Your task to perform on an android device: What's on my calendar today? Image 0: 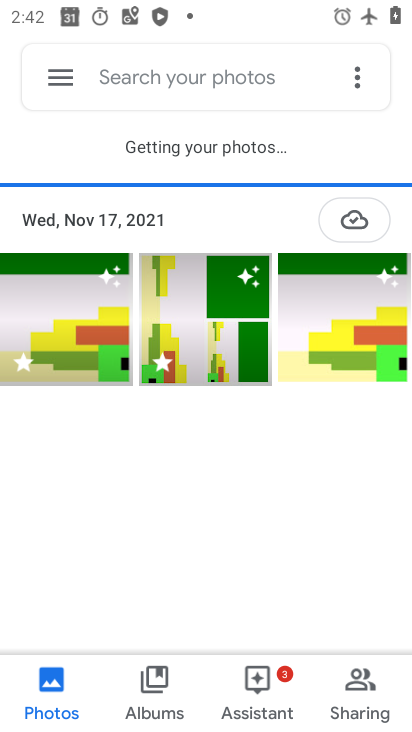
Step 0: press home button
Your task to perform on an android device: What's on my calendar today? Image 1: 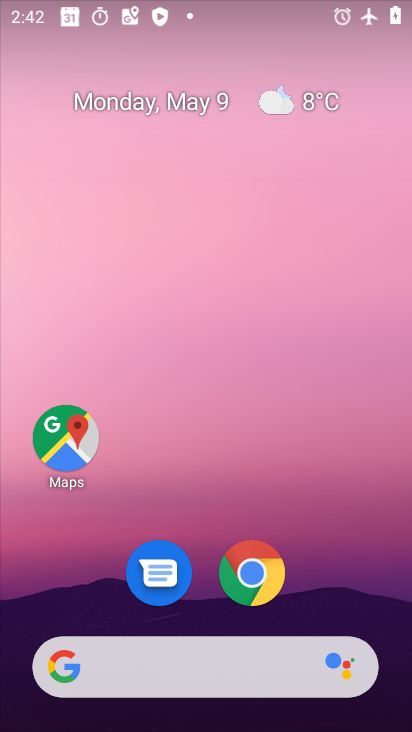
Step 1: drag from (115, 671) to (283, 116)
Your task to perform on an android device: What's on my calendar today? Image 2: 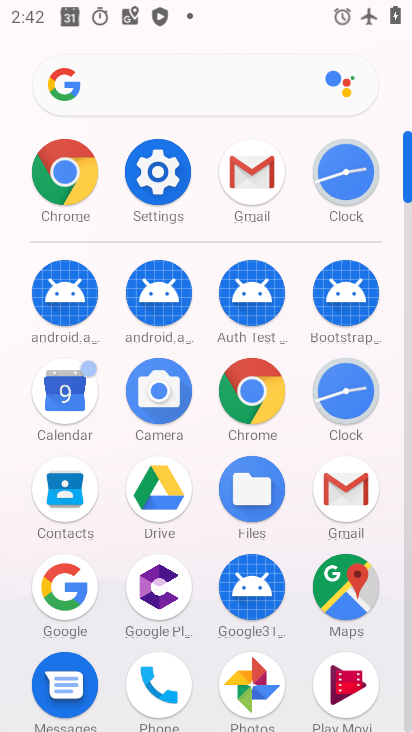
Step 2: click (66, 404)
Your task to perform on an android device: What's on my calendar today? Image 3: 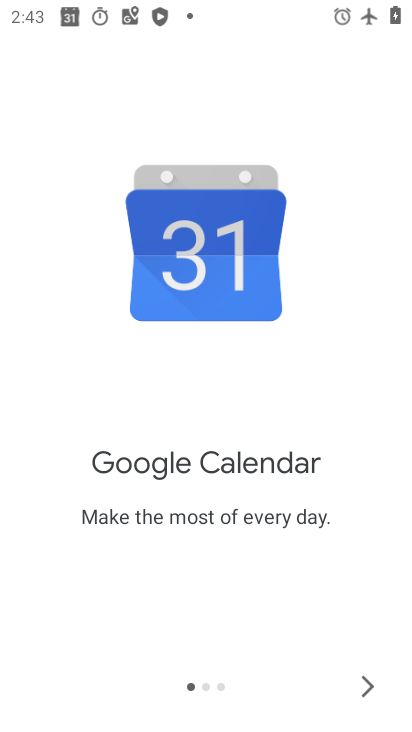
Step 3: click (365, 682)
Your task to perform on an android device: What's on my calendar today? Image 4: 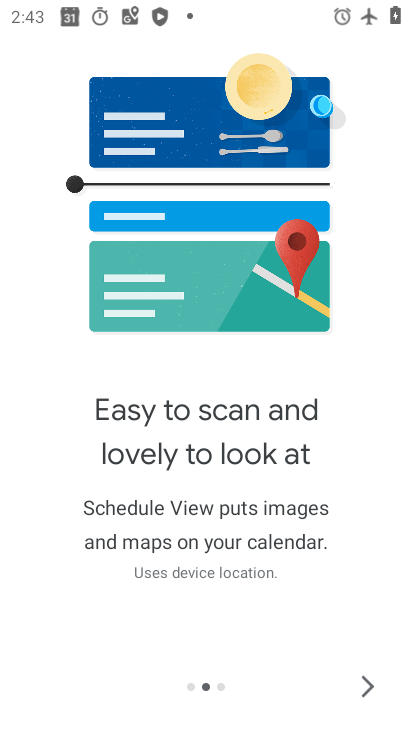
Step 4: click (365, 682)
Your task to perform on an android device: What's on my calendar today? Image 5: 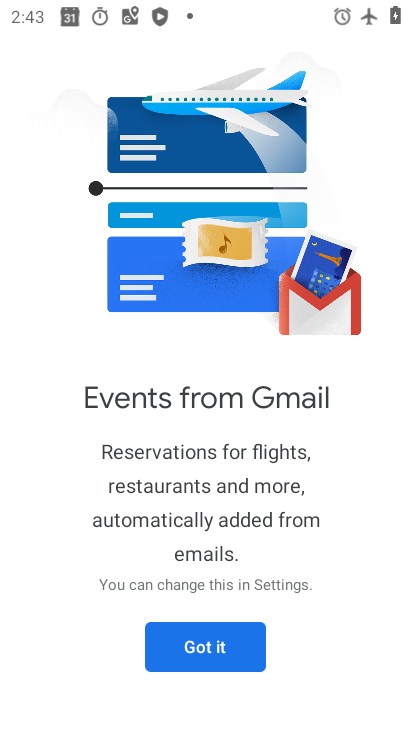
Step 5: click (240, 654)
Your task to perform on an android device: What's on my calendar today? Image 6: 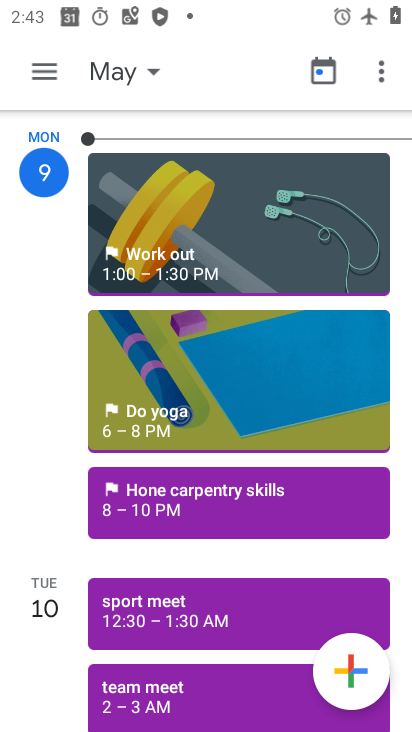
Step 6: click (179, 499)
Your task to perform on an android device: What's on my calendar today? Image 7: 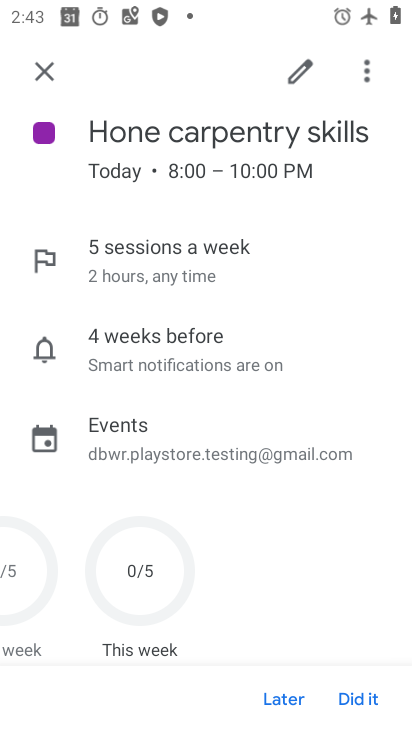
Step 7: task complete